Your task to perform on an android device: Open Google Maps and go to "Timeline" Image 0: 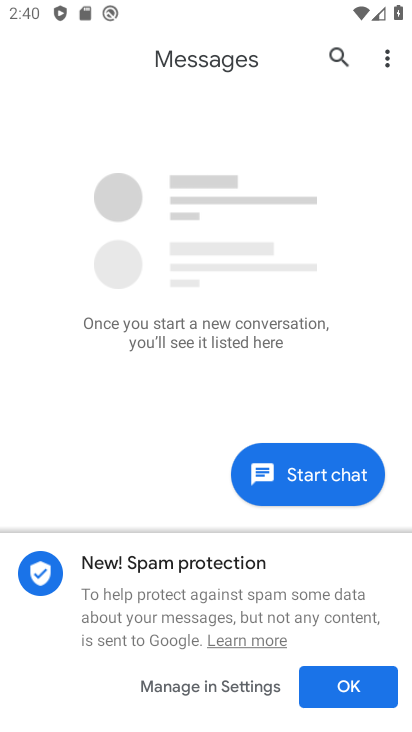
Step 0: press home button
Your task to perform on an android device: Open Google Maps and go to "Timeline" Image 1: 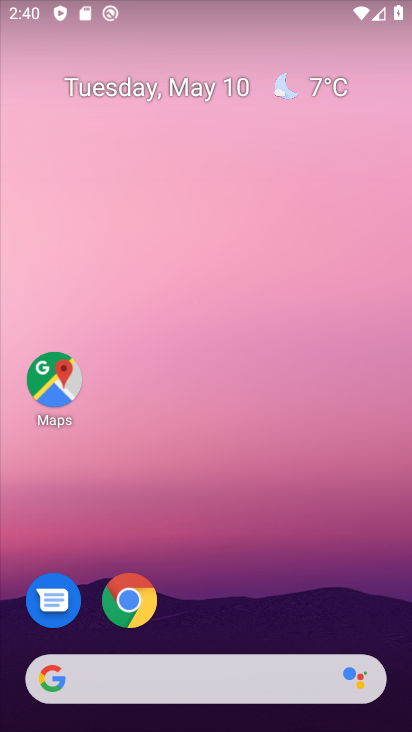
Step 1: click (59, 361)
Your task to perform on an android device: Open Google Maps and go to "Timeline" Image 2: 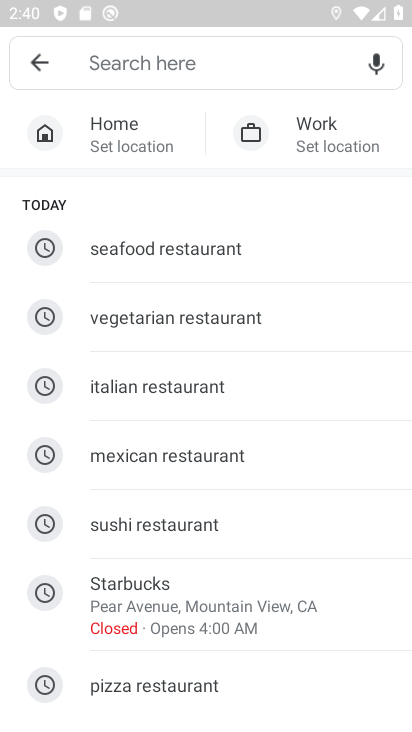
Step 2: click (48, 87)
Your task to perform on an android device: Open Google Maps and go to "Timeline" Image 3: 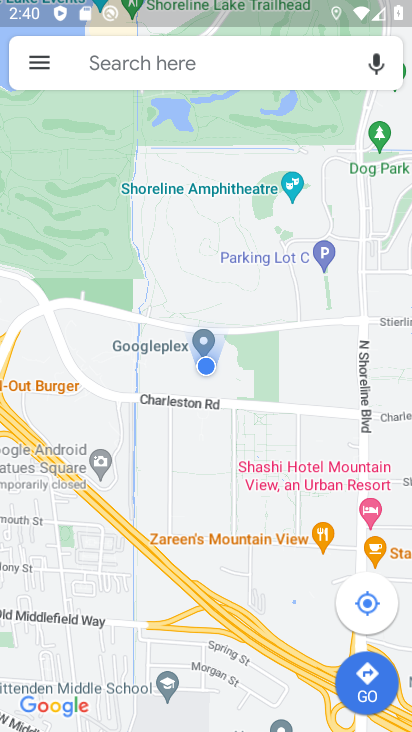
Step 3: click (39, 74)
Your task to perform on an android device: Open Google Maps and go to "Timeline" Image 4: 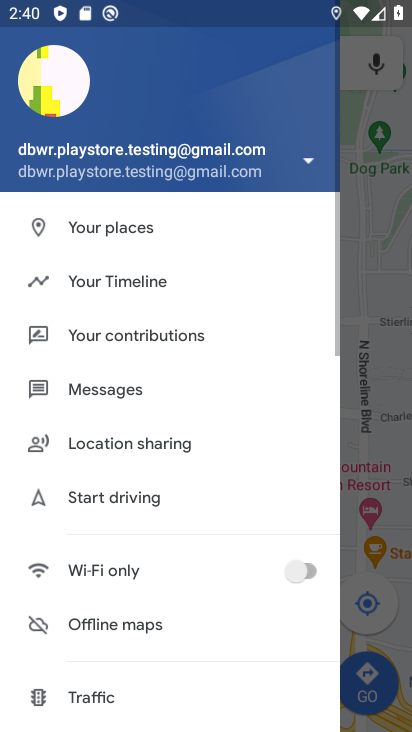
Step 4: click (148, 283)
Your task to perform on an android device: Open Google Maps and go to "Timeline" Image 5: 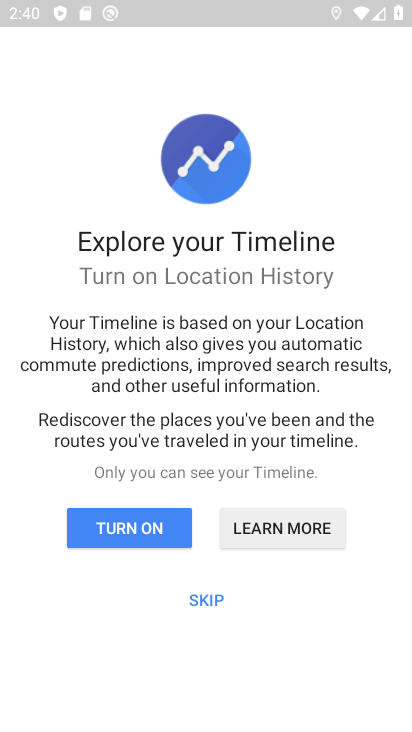
Step 5: click (163, 539)
Your task to perform on an android device: Open Google Maps and go to "Timeline" Image 6: 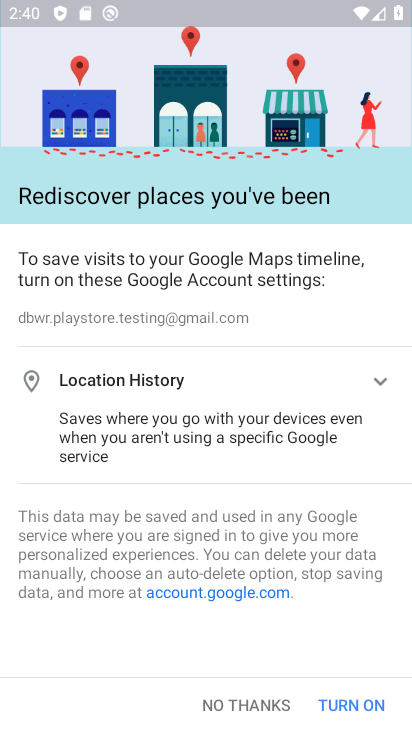
Step 6: click (344, 689)
Your task to perform on an android device: Open Google Maps and go to "Timeline" Image 7: 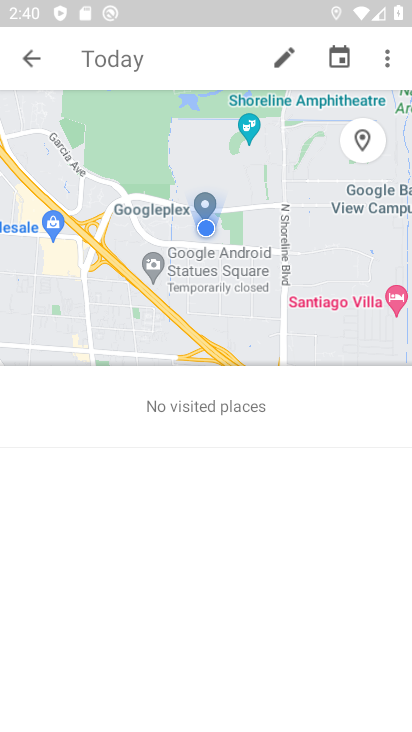
Step 7: task complete